Your task to perform on an android device: Show me the alarms in the clock app Image 0: 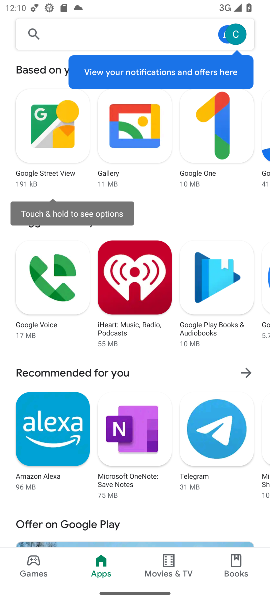
Step 0: press home button
Your task to perform on an android device: Show me the alarms in the clock app Image 1: 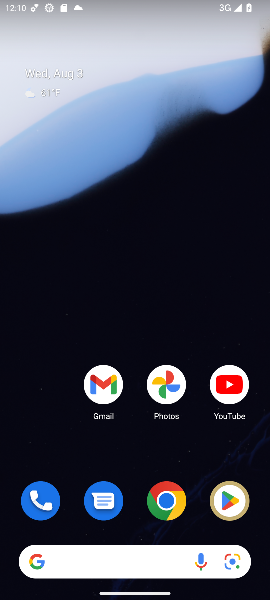
Step 1: drag from (148, 453) to (254, 12)
Your task to perform on an android device: Show me the alarms in the clock app Image 2: 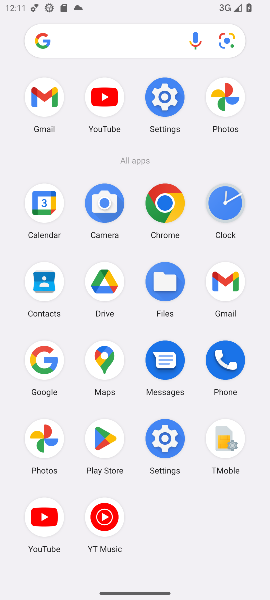
Step 2: click (227, 195)
Your task to perform on an android device: Show me the alarms in the clock app Image 3: 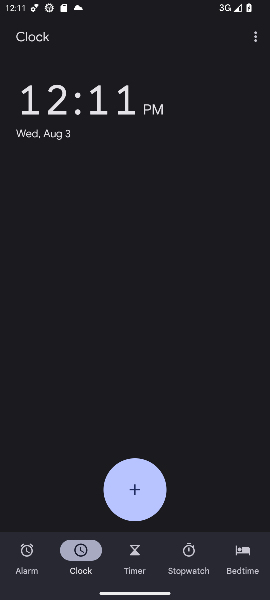
Step 3: click (30, 552)
Your task to perform on an android device: Show me the alarms in the clock app Image 4: 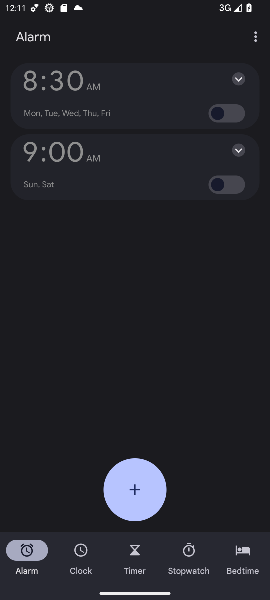
Step 4: task complete